Your task to perform on an android device: turn off improve location accuracy Image 0: 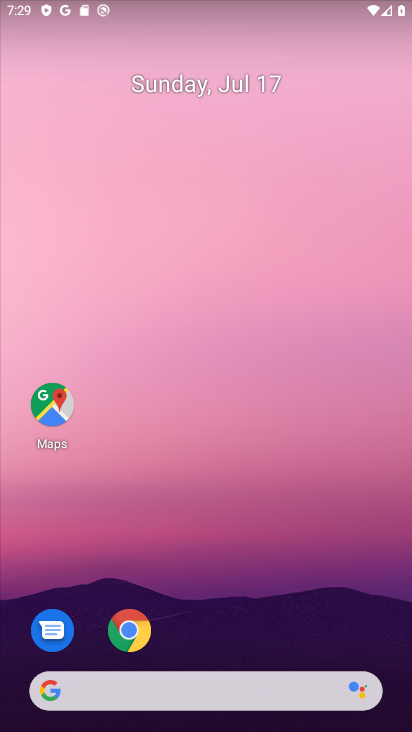
Step 0: drag from (223, 443) to (258, 179)
Your task to perform on an android device: turn off improve location accuracy Image 1: 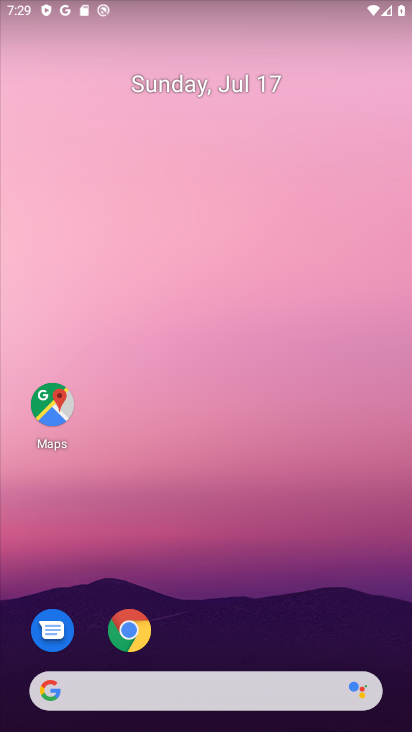
Step 1: drag from (206, 455) to (216, 115)
Your task to perform on an android device: turn off improve location accuracy Image 2: 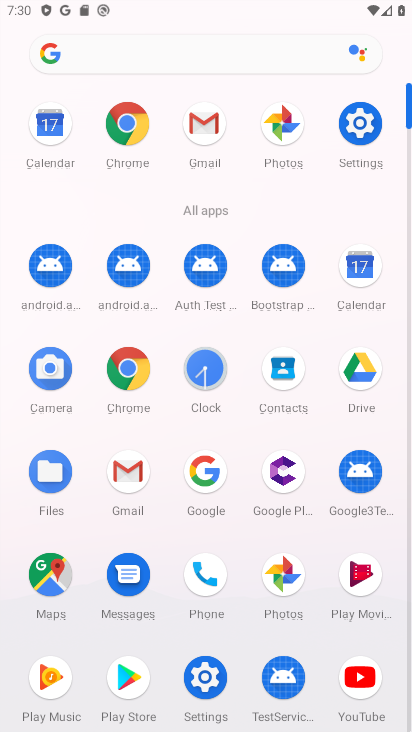
Step 2: click (361, 121)
Your task to perform on an android device: turn off improve location accuracy Image 3: 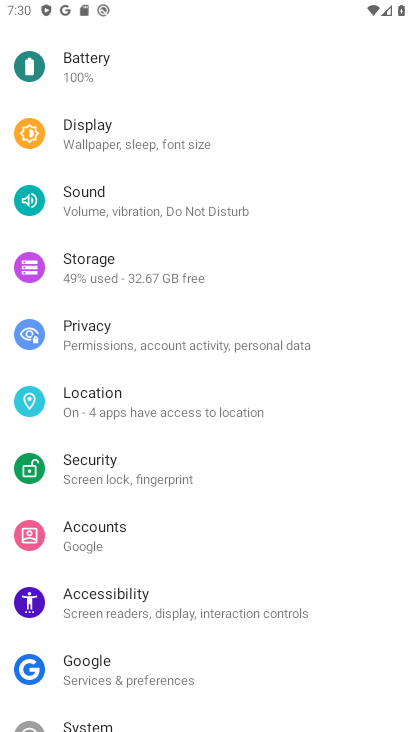
Step 3: click (146, 403)
Your task to perform on an android device: turn off improve location accuracy Image 4: 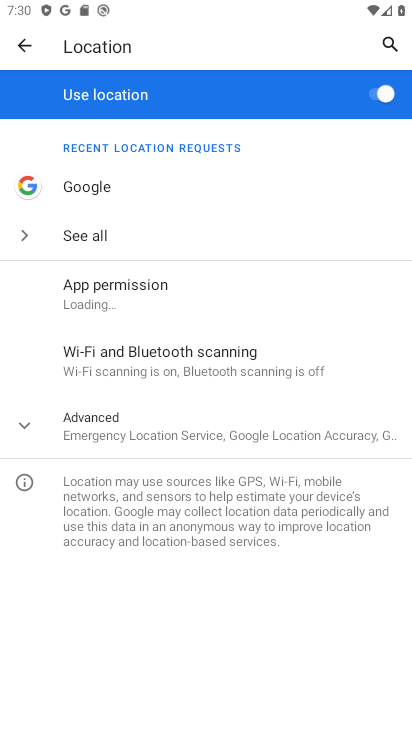
Step 4: click (155, 432)
Your task to perform on an android device: turn off improve location accuracy Image 5: 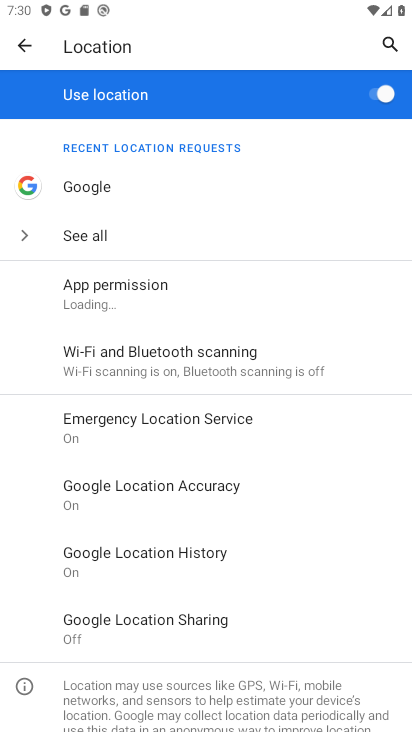
Step 5: click (135, 485)
Your task to perform on an android device: turn off improve location accuracy Image 6: 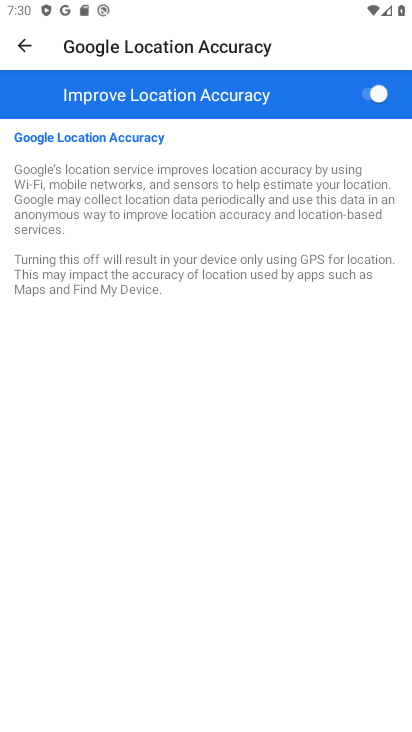
Step 6: click (365, 92)
Your task to perform on an android device: turn off improve location accuracy Image 7: 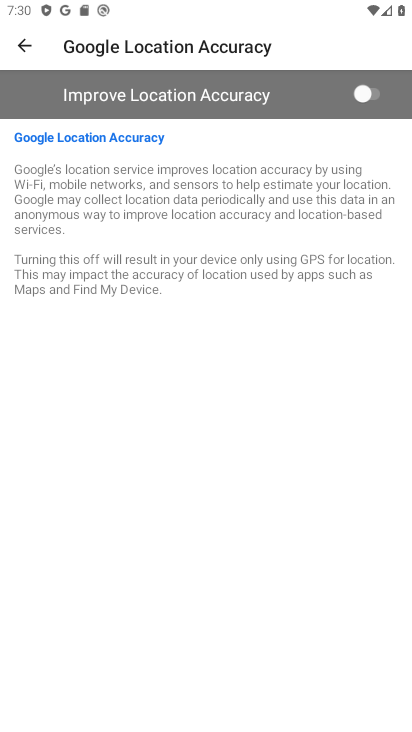
Step 7: task complete